Your task to perform on an android device: What's on my calendar tomorrow? Image 0: 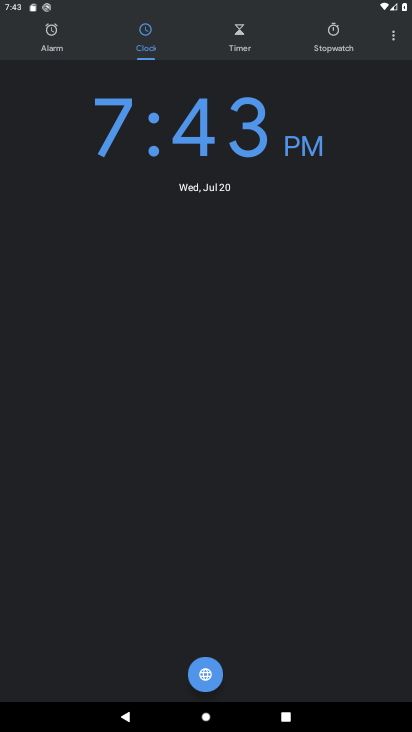
Step 0: press home button
Your task to perform on an android device: What's on my calendar tomorrow? Image 1: 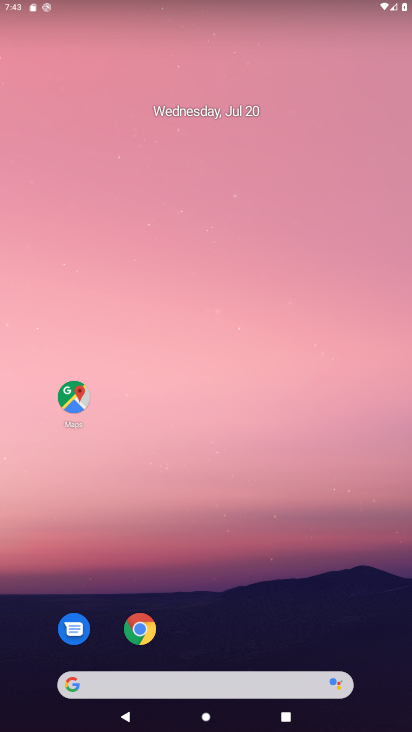
Step 1: drag from (313, 512) to (273, 225)
Your task to perform on an android device: What's on my calendar tomorrow? Image 2: 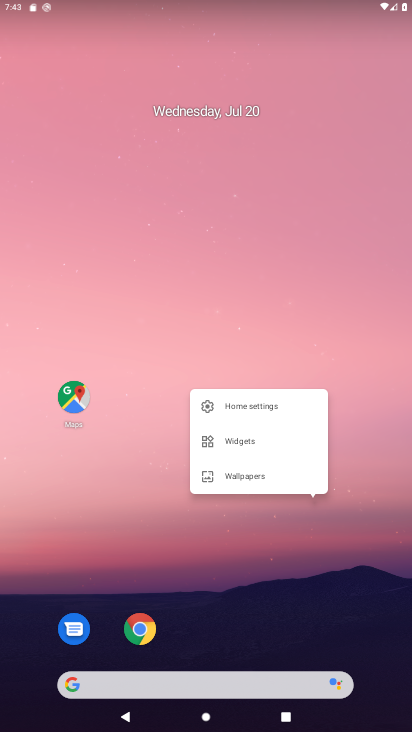
Step 2: click (370, 584)
Your task to perform on an android device: What's on my calendar tomorrow? Image 3: 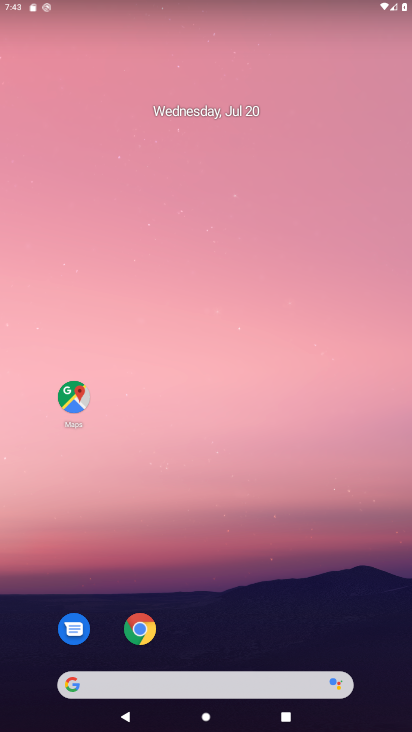
Step 3: drag from (300, 622) to (270, 106)
Your task to perform on an android device: What's on my calendar tomorrow? Image 4: 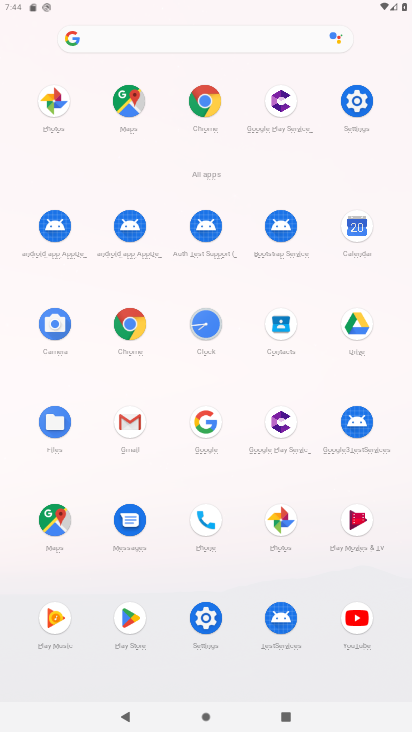
Step 4: click (357, 226)
Your task to perform on an android device: What's on my calendar tomorrow? Image 5: 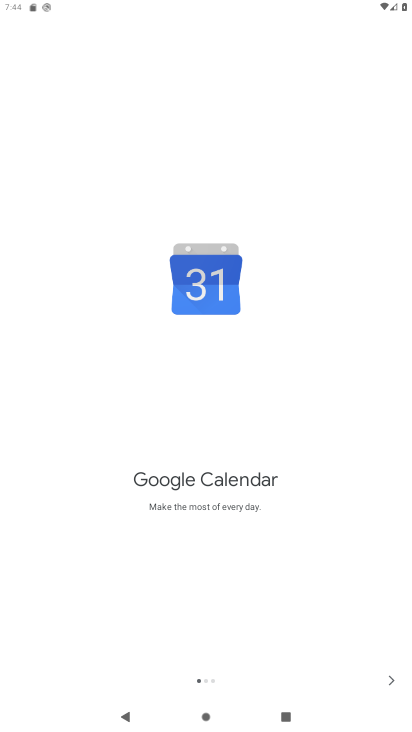
Step 5: click (394, 678)
Your task to perform on an android device: What's on my calendar tomorrow? Image 6: 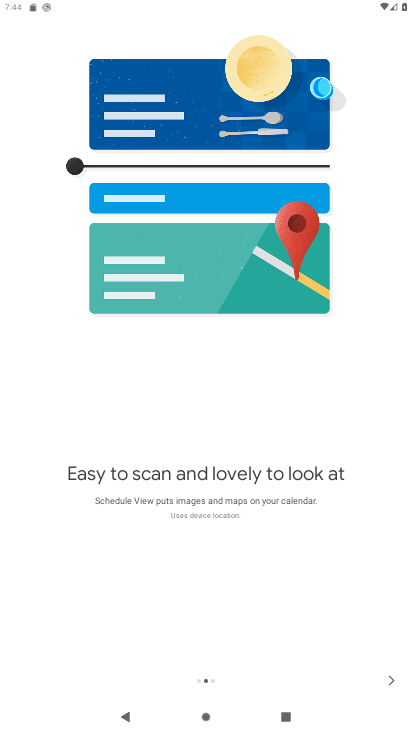
Step 6: click (394, 678)
Your task to perform on an android device: What's on my calendar tomorrow? Image 7: 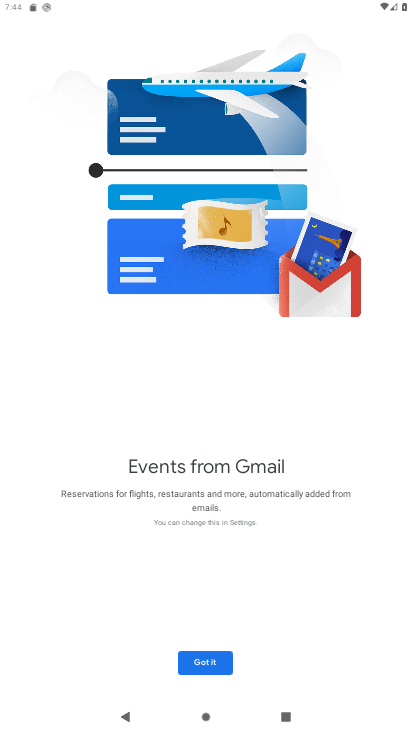
Step 7: click (216, 672)
Your task to perform on an android device: What's on my calendar tomorrow? Image 8: 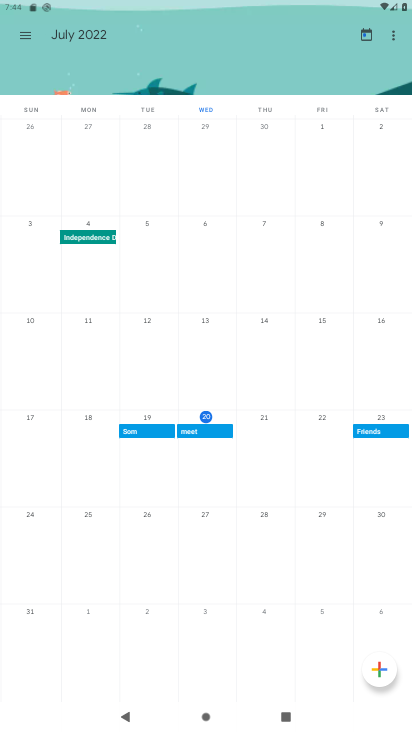
Step 8: click (23, 40)
Your task to perform on an android device: What's on my calendar tomorrow? Image 9: 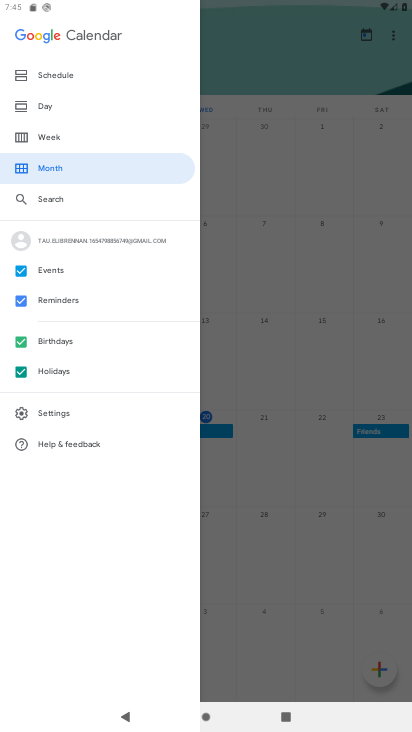
Step 9: click (55, 100)
Your task to perform on an android device: What's on my calendar tomorrow? Image 10: 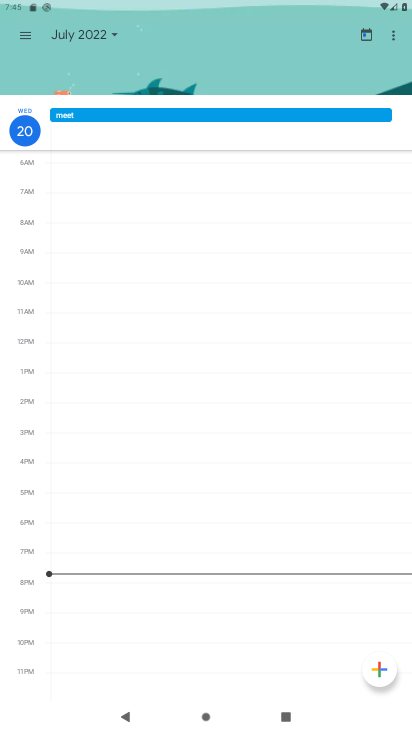
Step 10: click (114, 34)
Your task to perform on an android device: What's on my calendar tomorrow? Image 11: 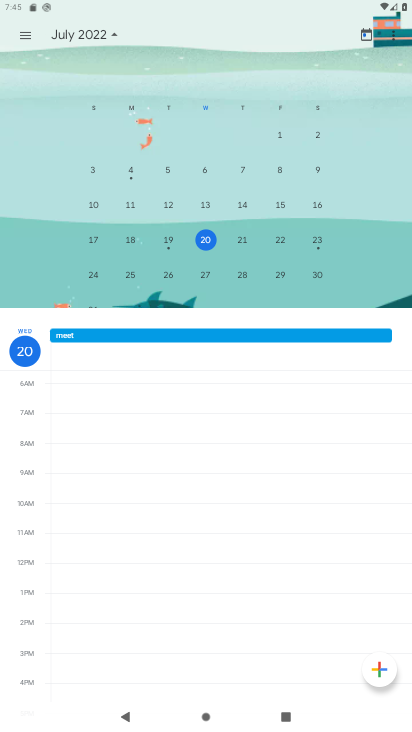
Step 11: click (246, 244)
Your task to perform on an android device: What's on my calendar tomorrow? Image 12: 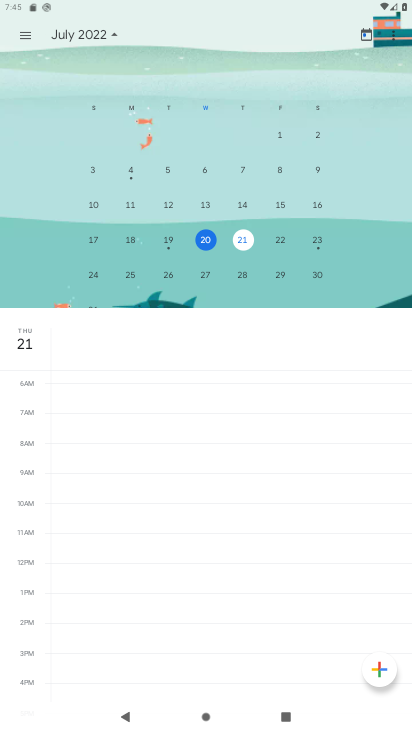
Step 12: task complete